Your task to perform on an android device: toggle wifi Image 0: 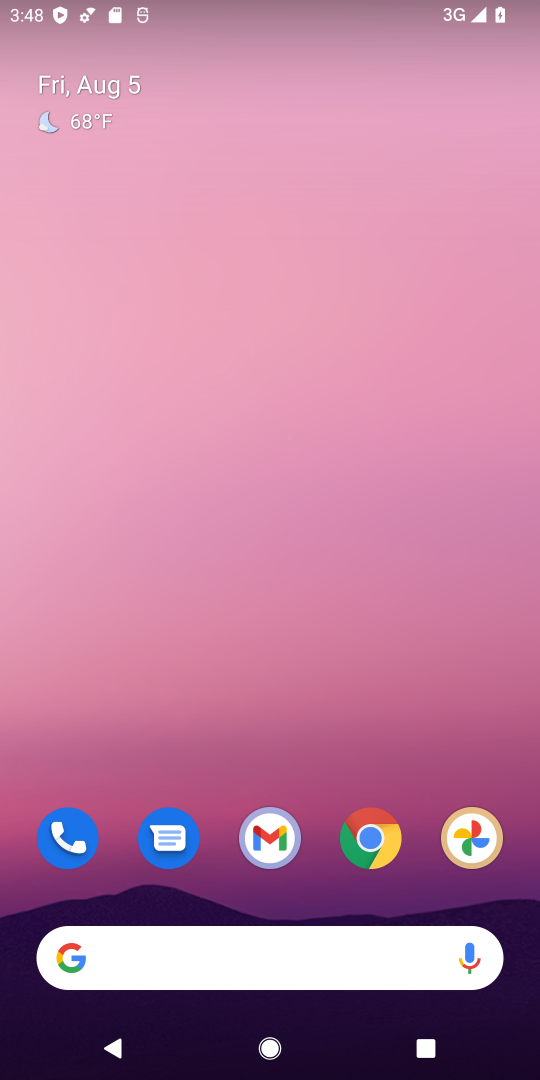
Step 0: drag from (179, 982) to (269, 329)
Your task to perform on an android device: toggle wifi Image 1: 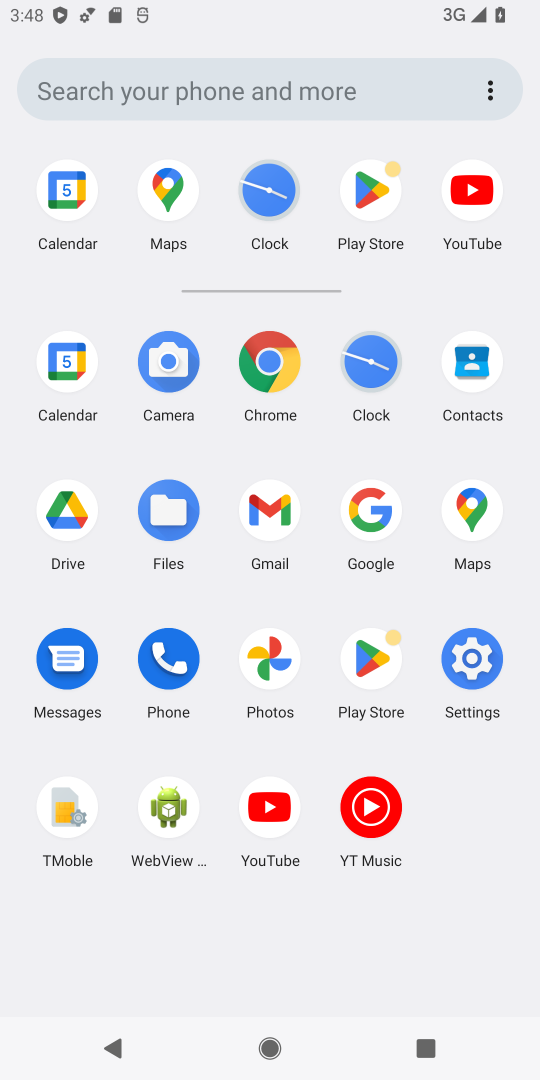
Step 1: click (469, 646)
Your task to perform on an android device: toggle wifi Image 2: 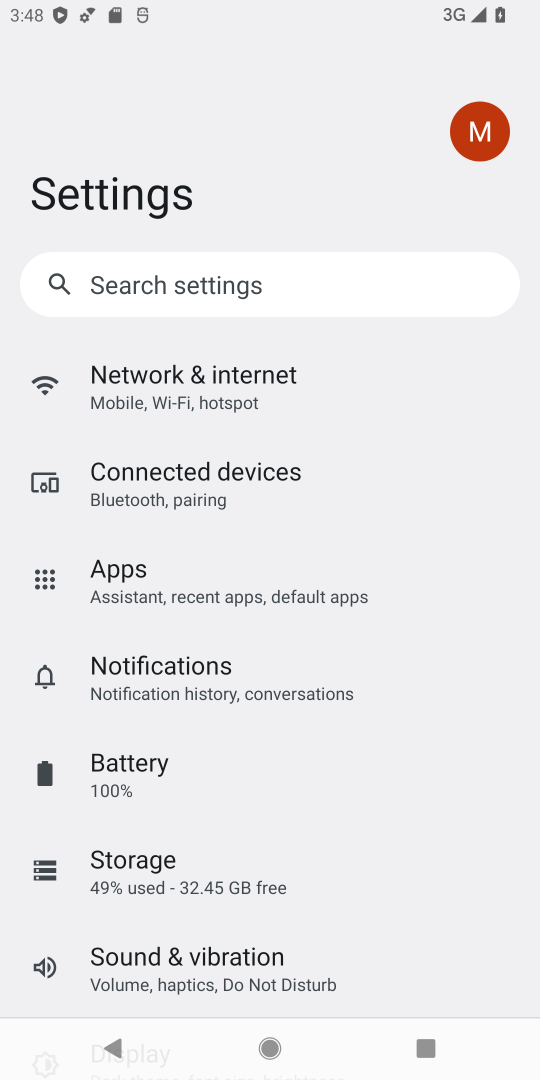
Step 2: click (198, 363)
Your task to perform on an android device: toggle wifi Image 3: 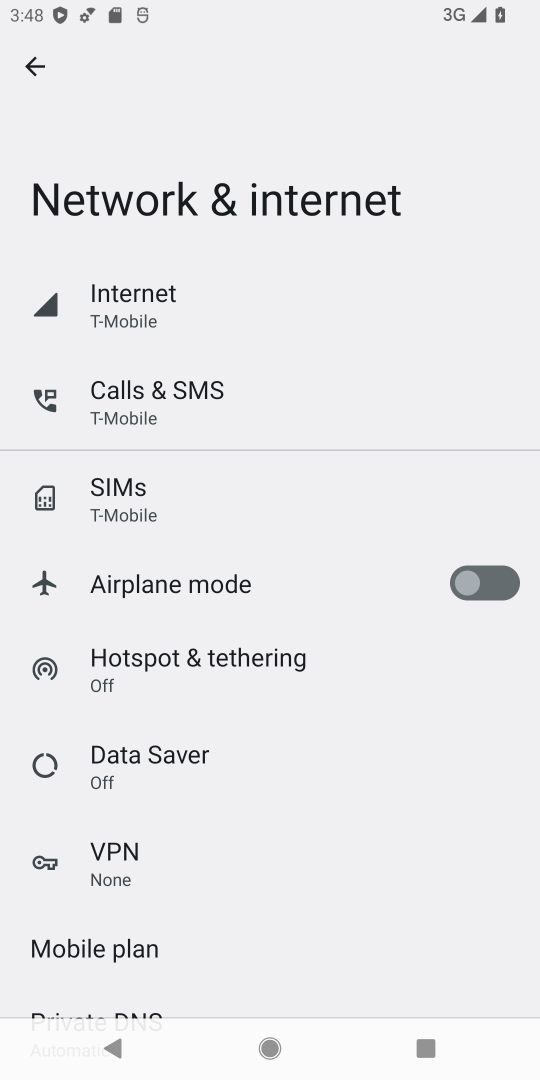
Step 3: click (178, 294)
Your task to perform on an android device: toggle wifi Image 4: 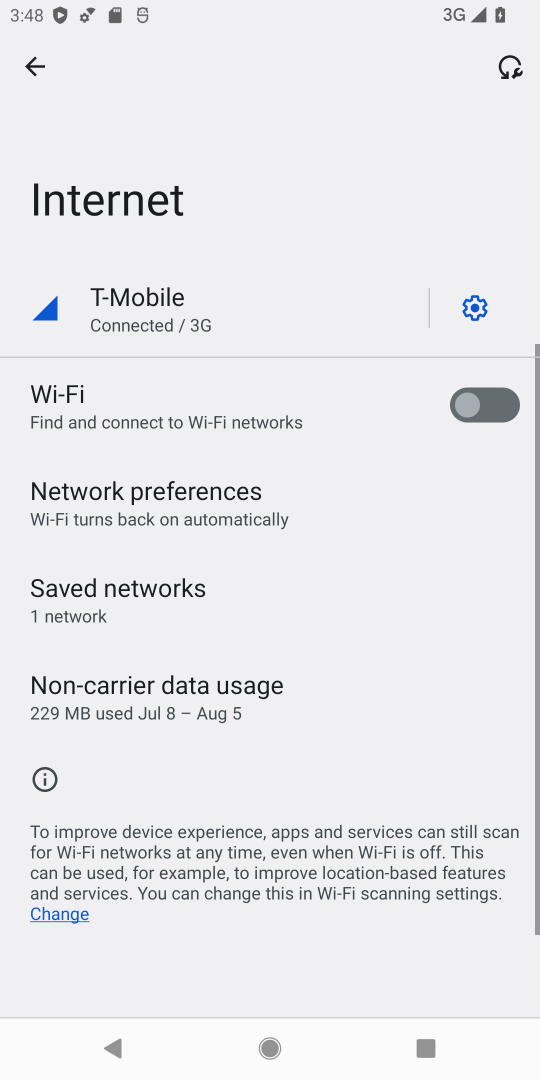
Step 4: click (490, 406)
Your task to perform on an android device: toggle wifi Image 5: 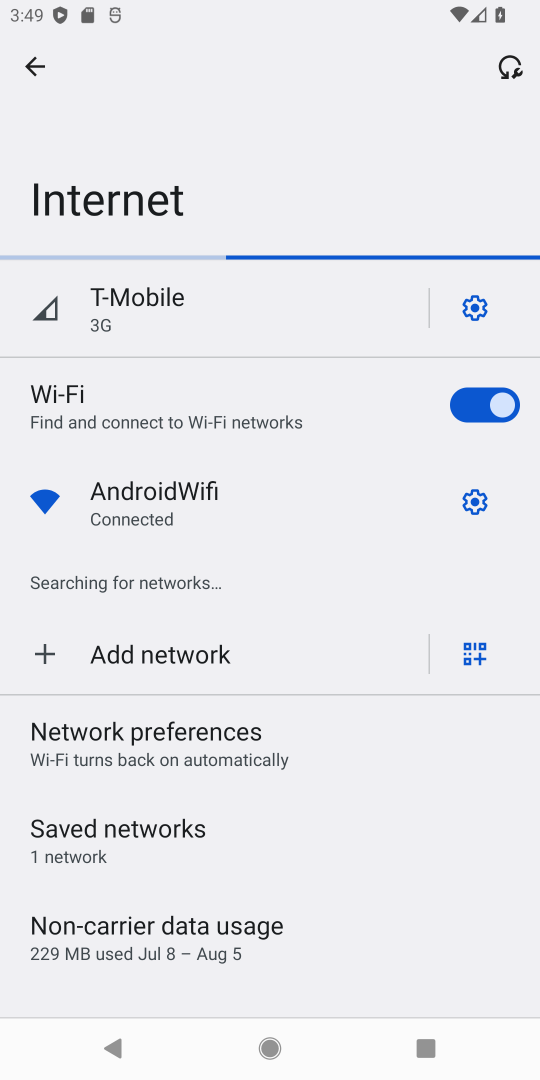
Step 5: task complete